Your task to perform on an android device: Open Google Chrome Image 0: 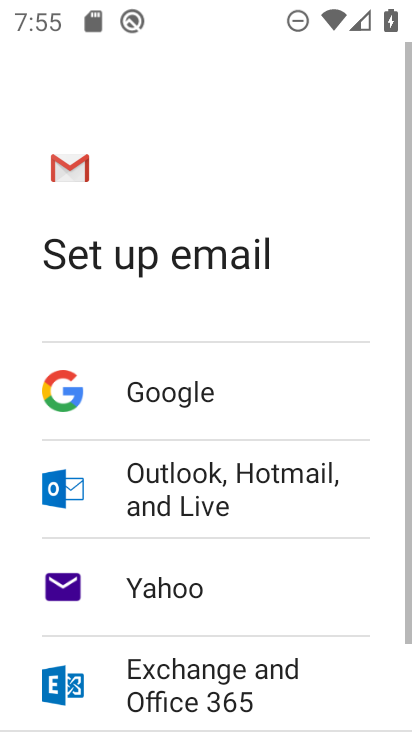
Step 0: press home button
Your task to perform on an android device: Open Google Chrome Image 1: 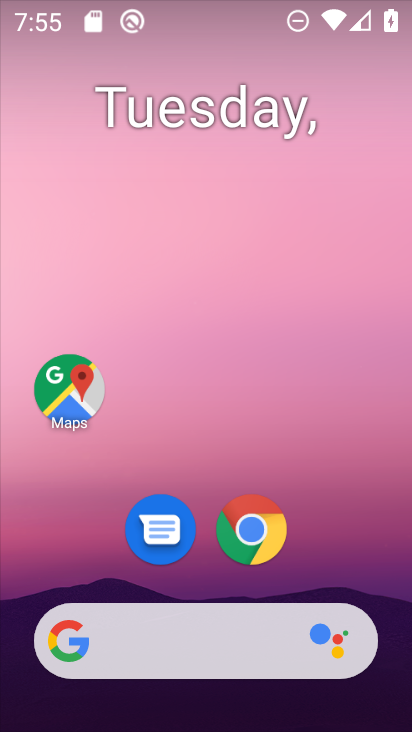
Step 1: drag from (222, 622) to (351, 58)
Your task to perform on an android device: Open Google Chrome Image 2: 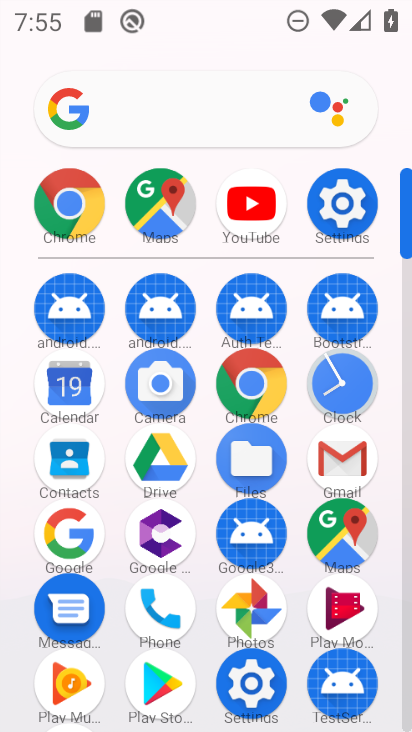
Step 2: click (255, 388)
Your task to perform on an android device: Open Google Chrome Image 3: 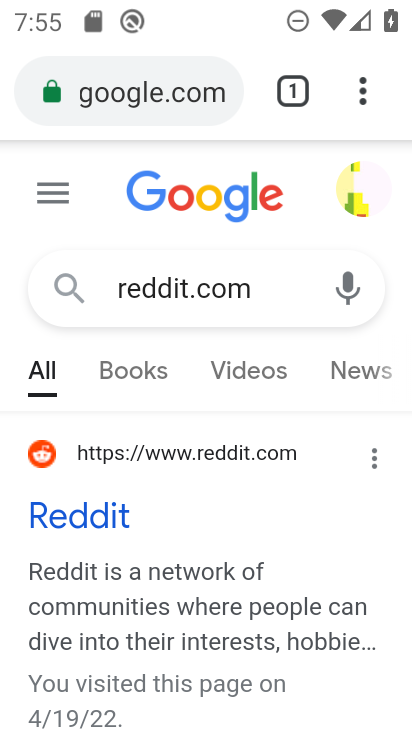
Step 3: task complete